Your task to perform on an android device: clear history in the chrome app Image 0: 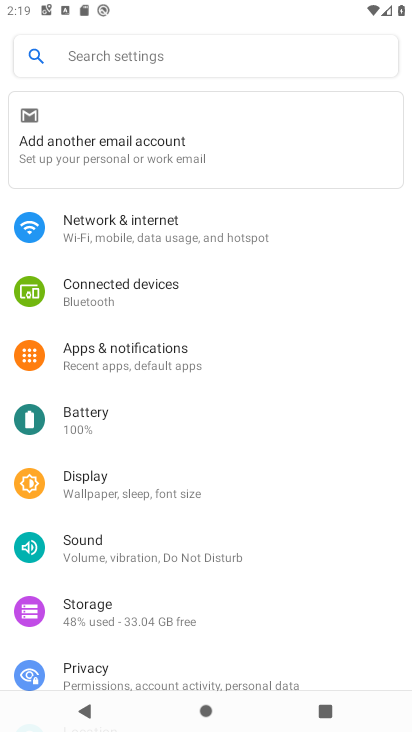
Step 0: drag from (184, 646) to (211, 259)
Your task to perform on an android device: clear history in the chrome app Image 1: 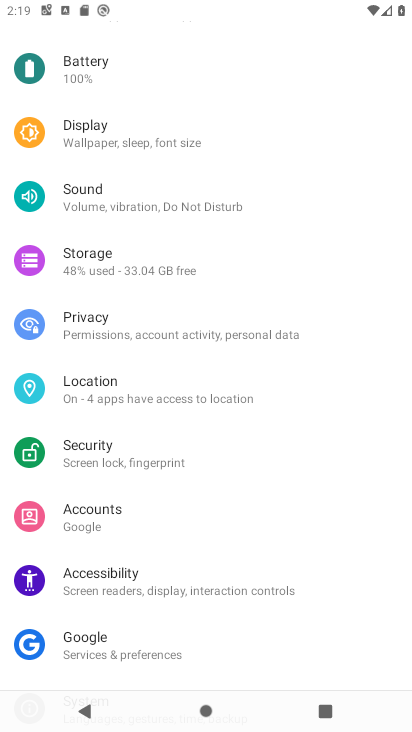
Step 1: press home button
Your task to perform on an android device: clear history in the chrome app Image 2: 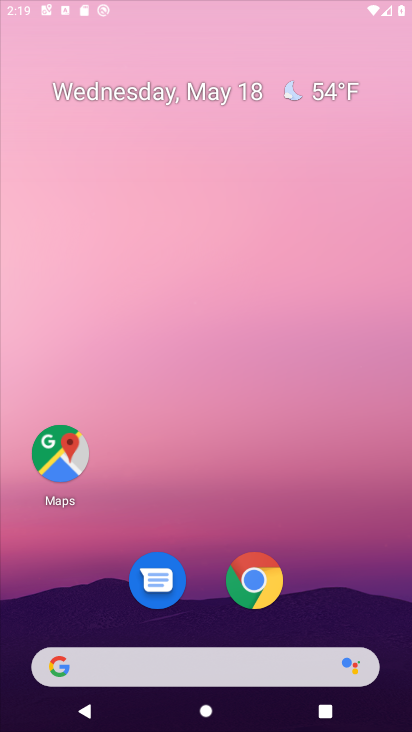
Step 2: drag from (139, 591) to (245, 207)
Your task to perform on an android device: clear history in the chrome app Image 3: 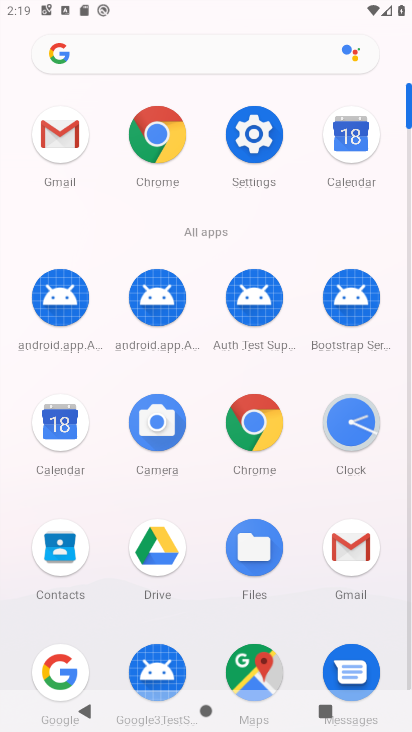
Step 3: click (256, 407)
Your task to perform on an android device: clear history in the chrome app Image 4: 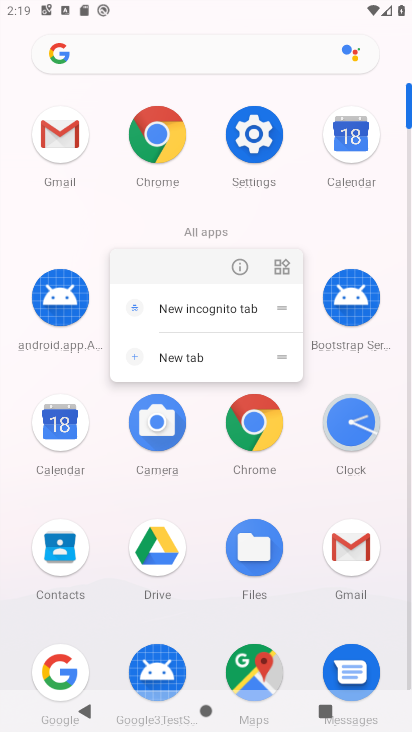
Step 4: click (239, 267)
Your task to perform on an android device: clear history in the chrome app Image 5: 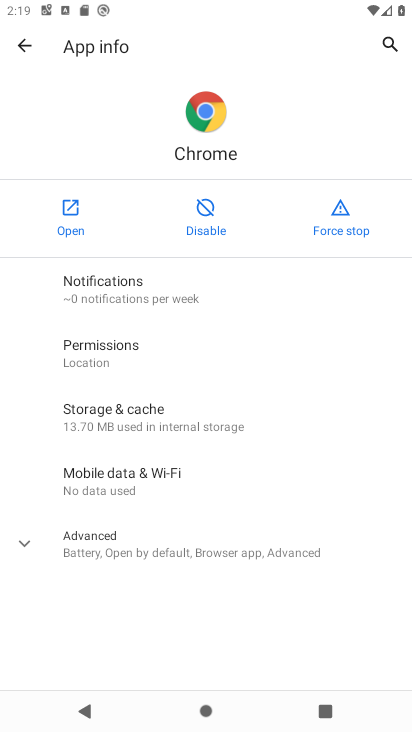
Step 5: click (65, 238)
Your task to perform on an android device: clear history in the chrome app Image 6: 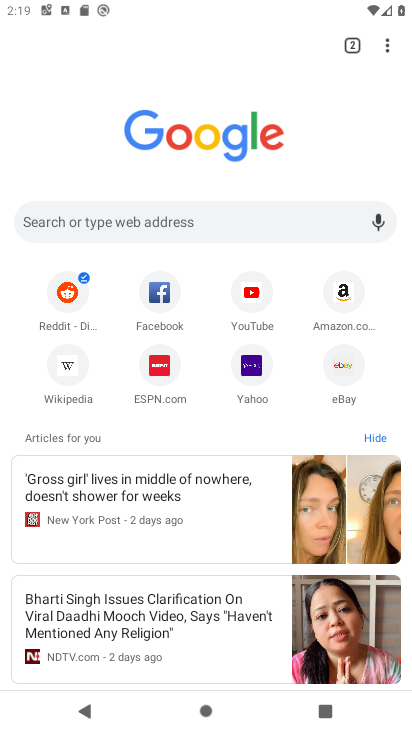
Step 6: click (392, 52)
Your task to perform on an android device: clear history in the chrome app Image 7: 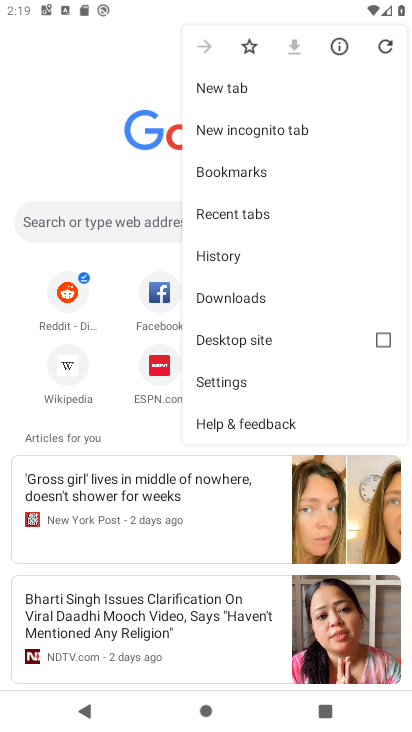
Step 7: click (233, 244)
Your task to perform on an android device: clear history in the chrome app Image 8: 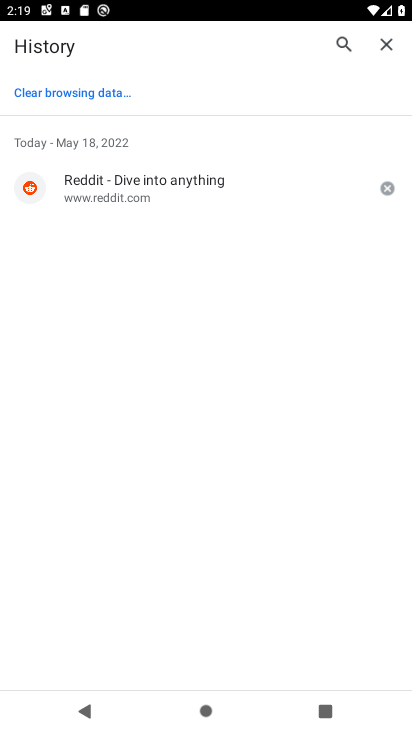
Step 8: drag from (191, 561) to (290, 149)
Your task to perform on an android device: clear history in the chrome app Image 9: 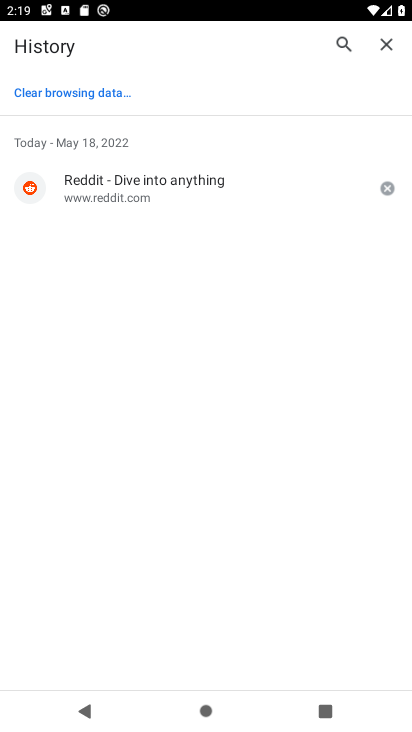
Step 9: click (32, 95)
Your task to perform on an android device: clear history in the chrome app Image 10: 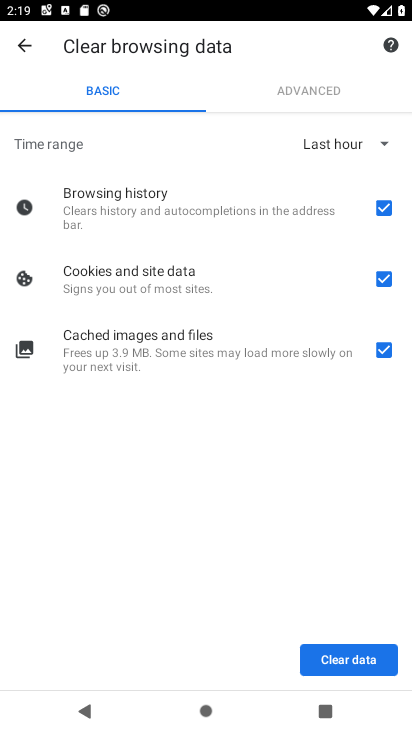
Step 10: drag from (303, 552) to (294, 207)
Your task to perform on an android device: clear history in the chrome app Image 11: 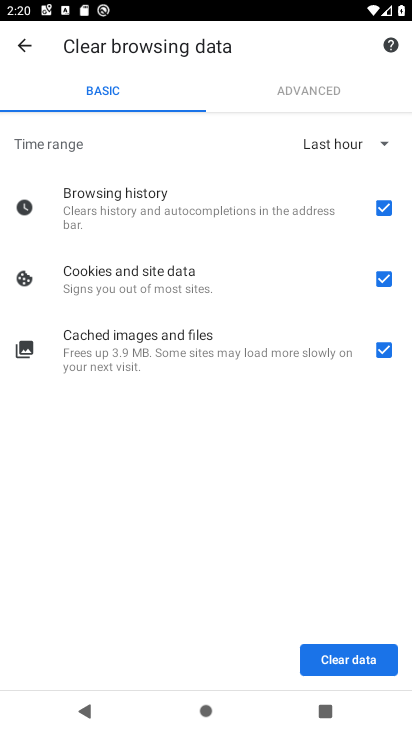
Step 11: click (354, 141)
Your task to perform on an android device: clear history in the chrome app Image 12: 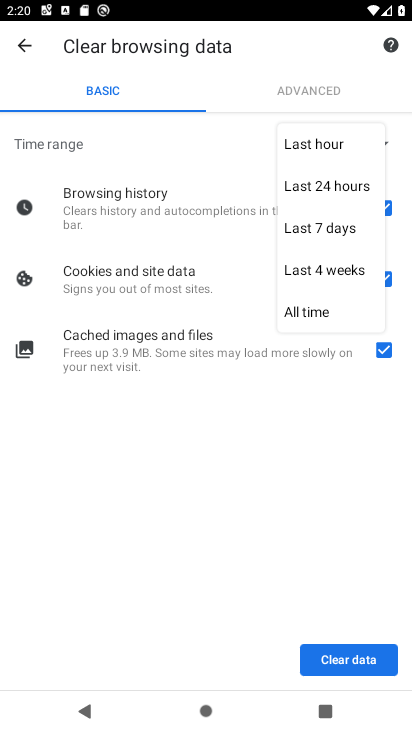
Step 12: click (314, 307)
Your task to perform on an android device: clear history in the chrome app Image 13: 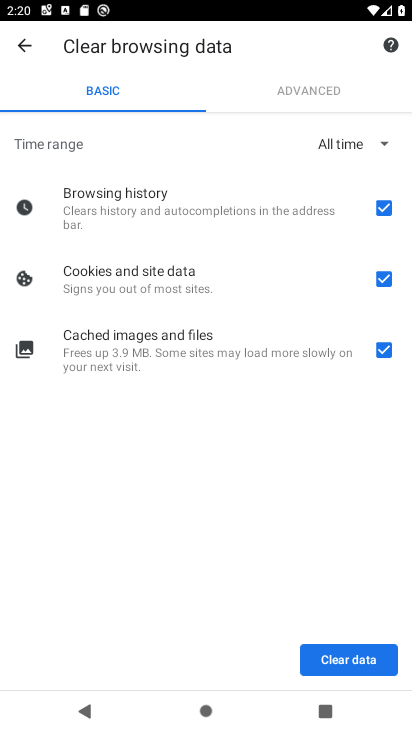
Step 13: click (336, 660)
Your task to perform on an android device: clear history in the chrome app Image 14: 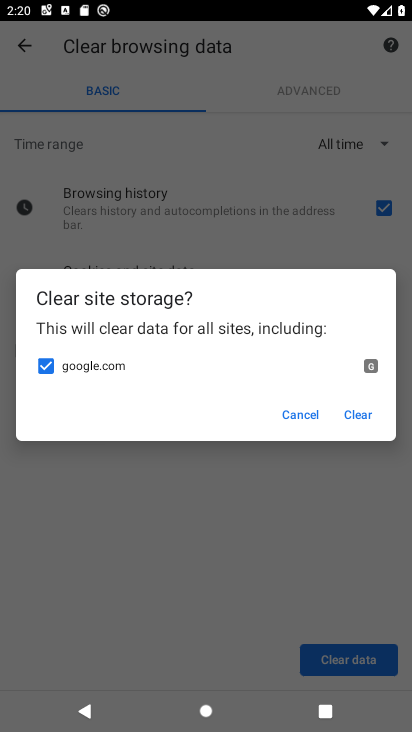
Step 14: click (357, 411)
Your task to perform on an android device: clear history in the chrome app Image 15: 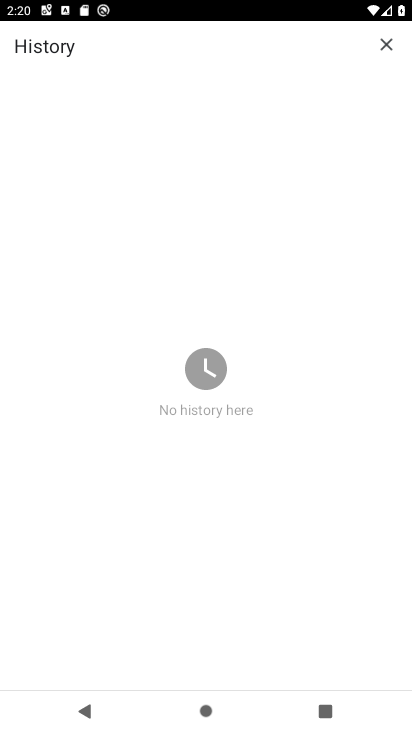
Step 15: task complete